Your task to perform on an android device: Go to battery settings Image 0: 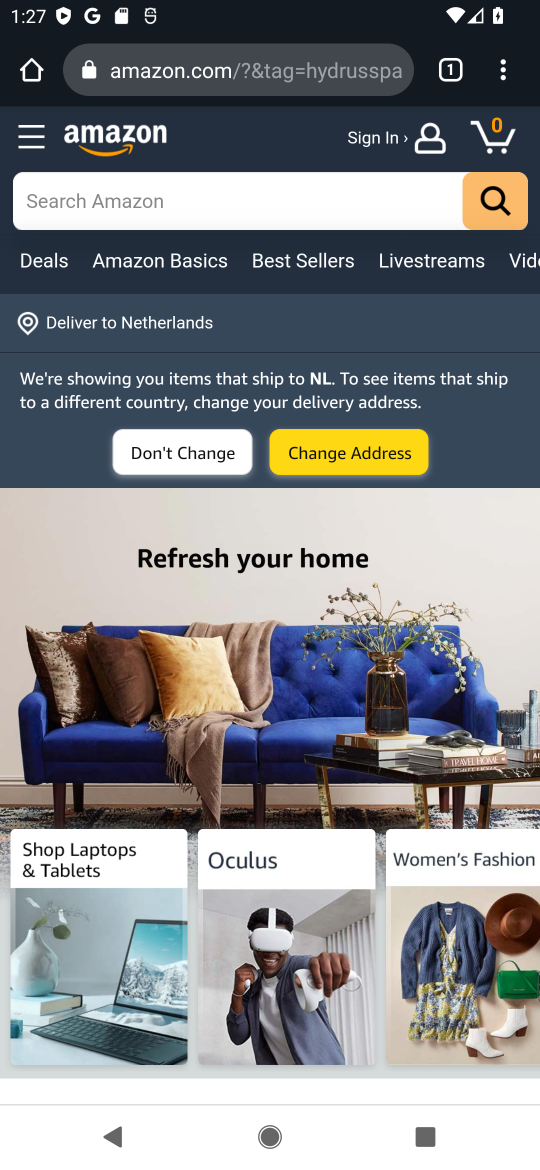
Step 0: press home button
Your task to perform on an android device: Go to battery settings Image 1: 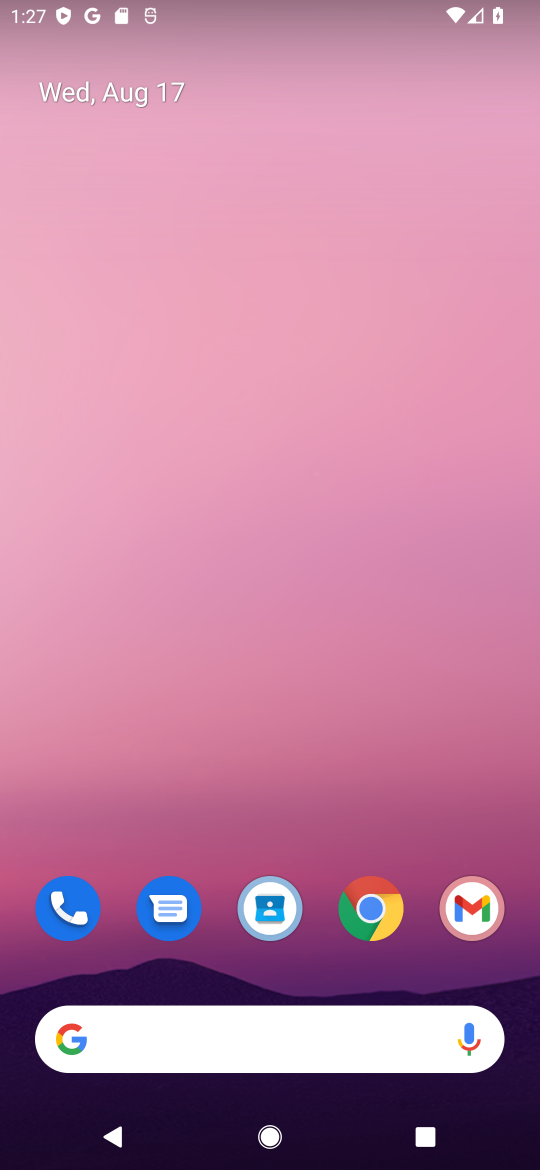
Step 1: drag from (320, 973) to (311, 188)
Your task to perform on an android device: Go to battery settings Image 2: 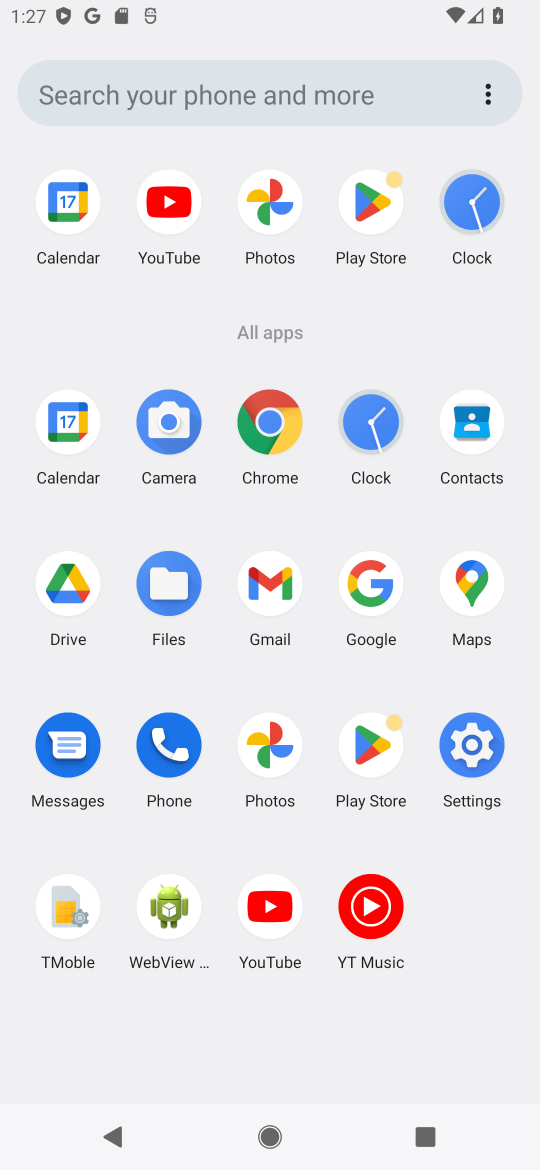
Step 2: click (465, 752)
Your task to perform on an android device: Go to battery settings Image 3: 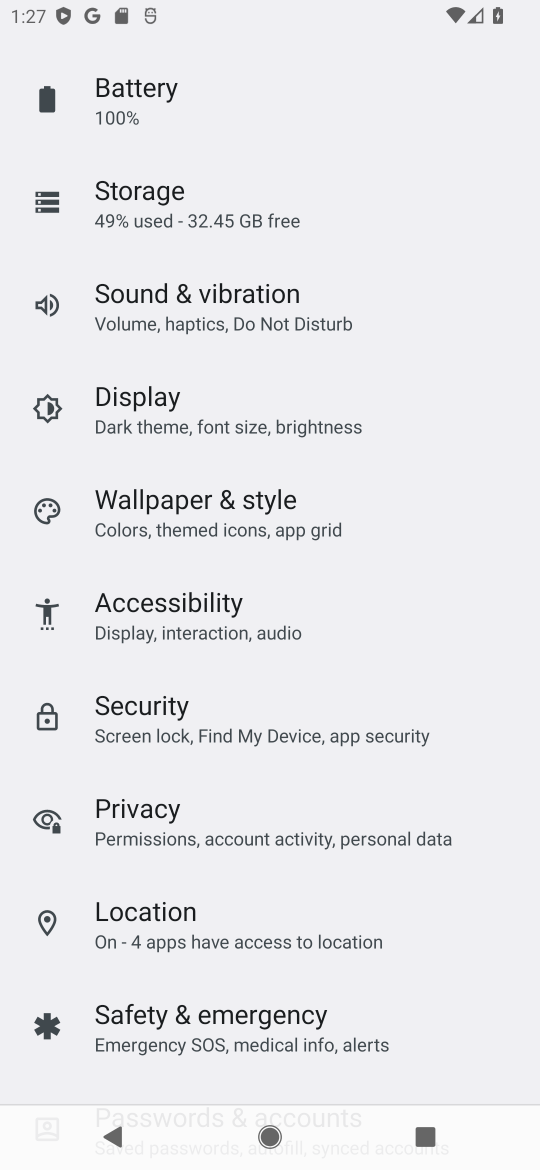
Step 3: click (121, 92)
Your task to perform on an android device: Go to battery settings Image 4: 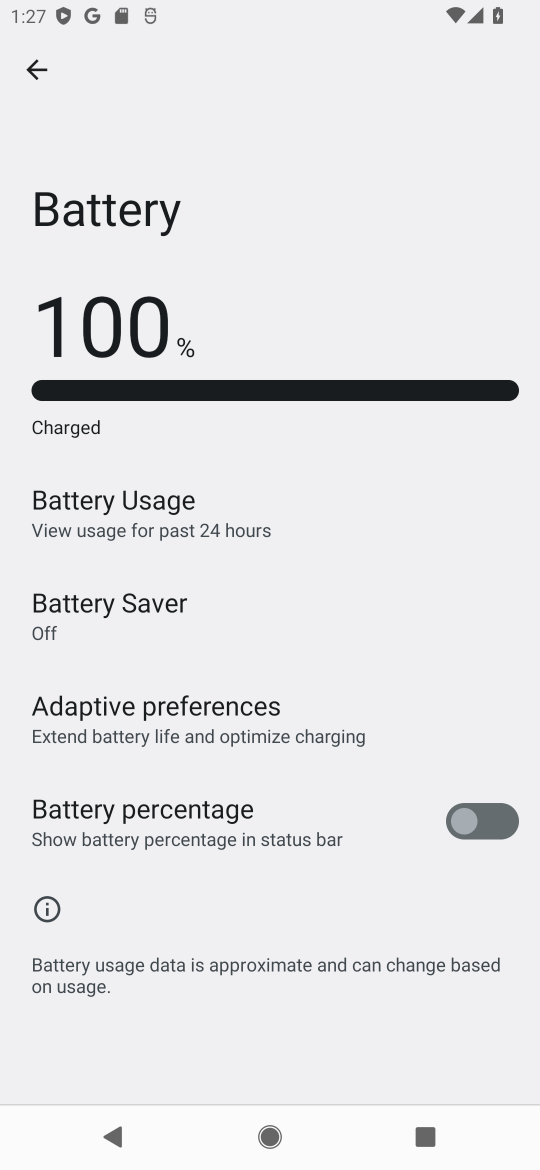
Step 4: task complete